Your task to perform on an android device: turn off data saver in the chrome app Image 0: 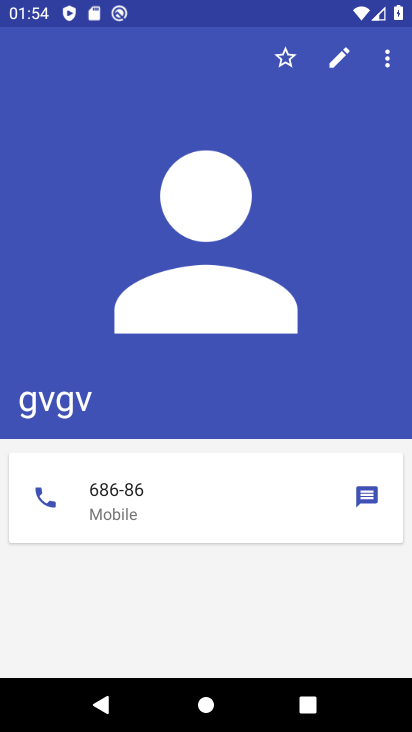
Step 0: press back button
Your task to perform on an android device: turn off data saver in the chrome app Image 1: 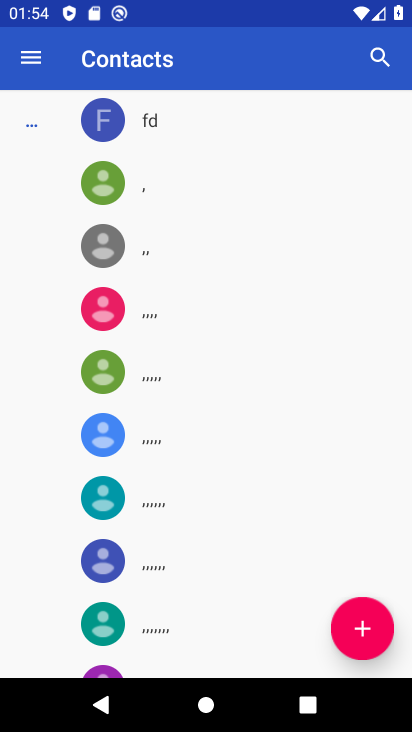
Step 1: press back button
Your task to perform on an android device: turn off data saver in the chrome app Image 2: 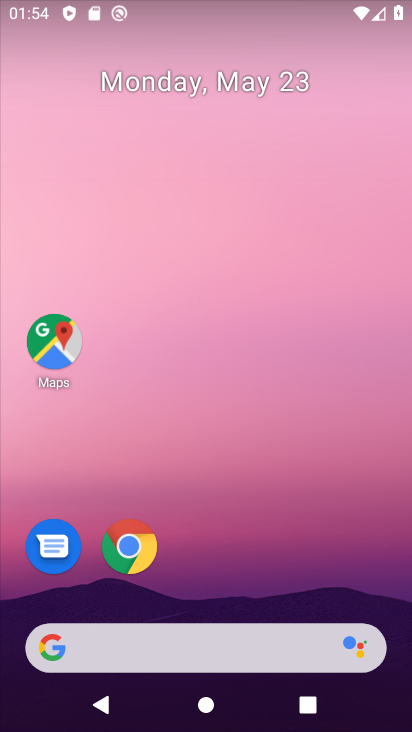
Step 2: drag from (225, 590) to (313, 55)
Your task to perform on an android device: turn off data saver in the chrome app Image 3: 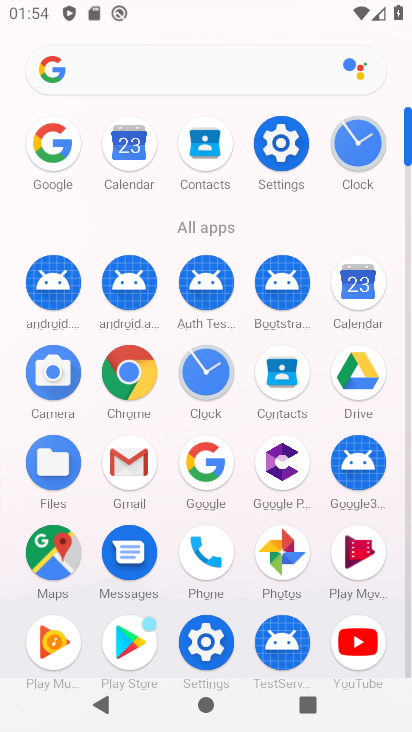
Step 3: click (124, 385)
Your task to perform on an android device: turn off data saver in the chrome app Image 4: 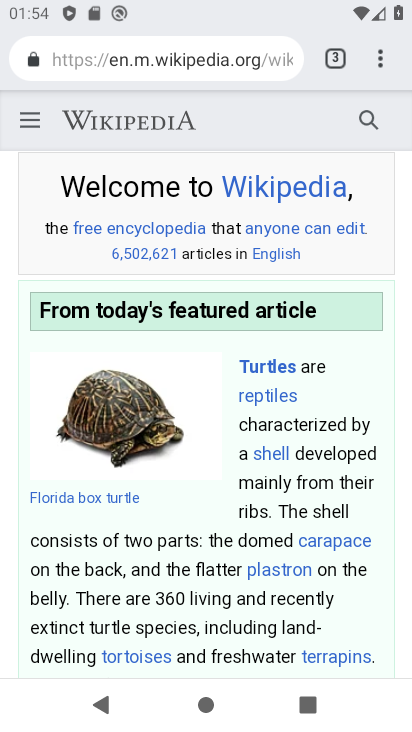
Step 4: drag from (383, 61) to (182, 566)
Your task to perform on an android device: turn off data saver in the chrome app Image 5: 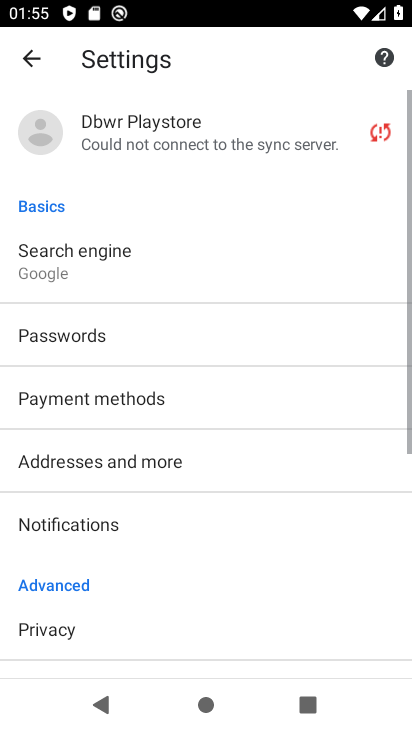
Step 5: drag from (117, 630) to (193, 219)
Your task to perform on an android device: turn off data saver in the chrome app Image 6: 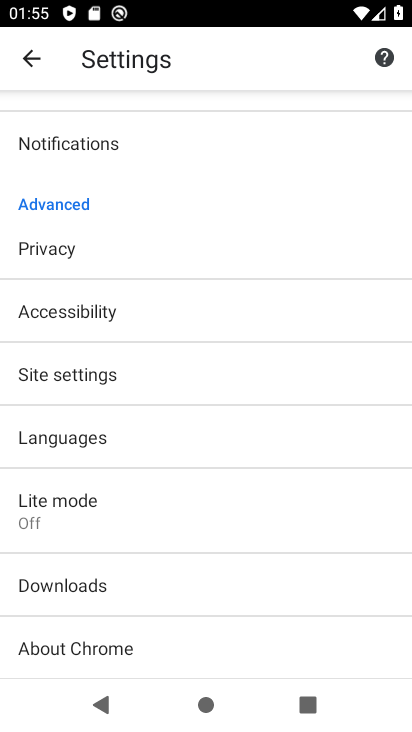
Step 6: click (45, 527)
Your task to perform on an android device: turn off data saver in the chrome app Image 7: 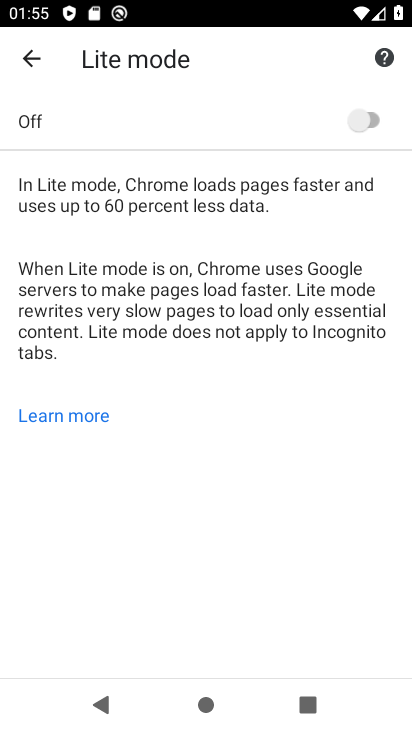
Step 7: click (359, 113)
Your task to perform on an android device: turn off data saver in the chrome app Image 8: 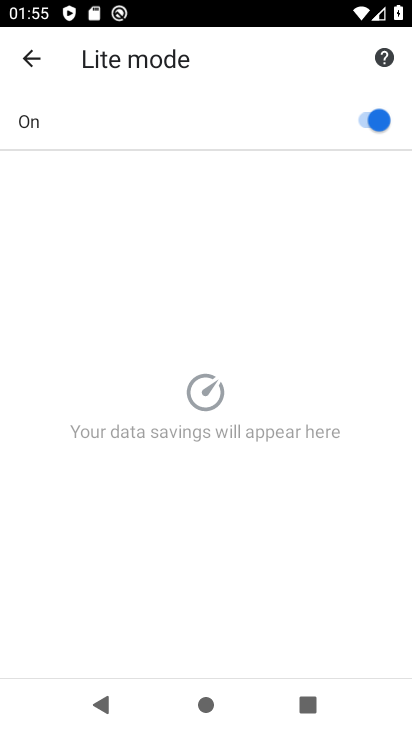
Step 8: click (358, 112)
Your task to perform on an android device: turn off data saver in the chrome app Image 9: 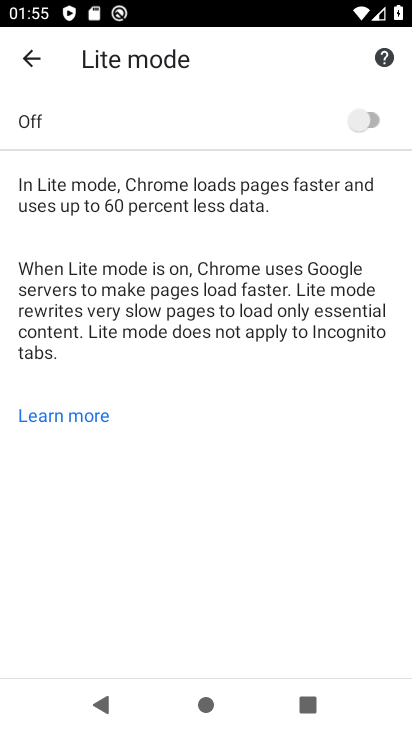
Step 9: task complete